Your task to perform on an android device: Open Chrome and go to settings Image 0: 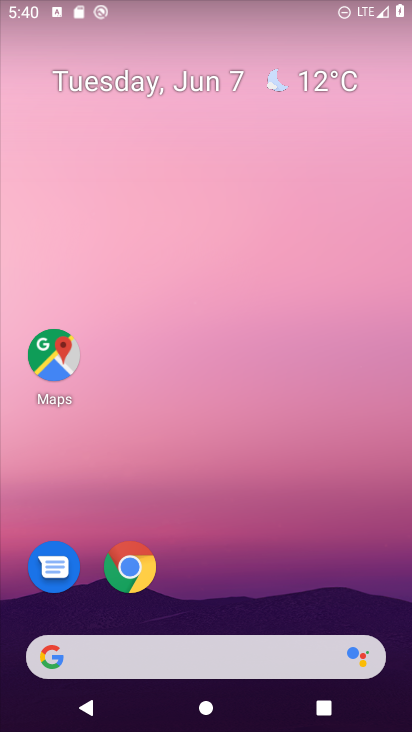
Step 0: drag from (326, 670) to (370, 37)
Your task to perform on an android device: Open Chrome and go to settings Image 1: 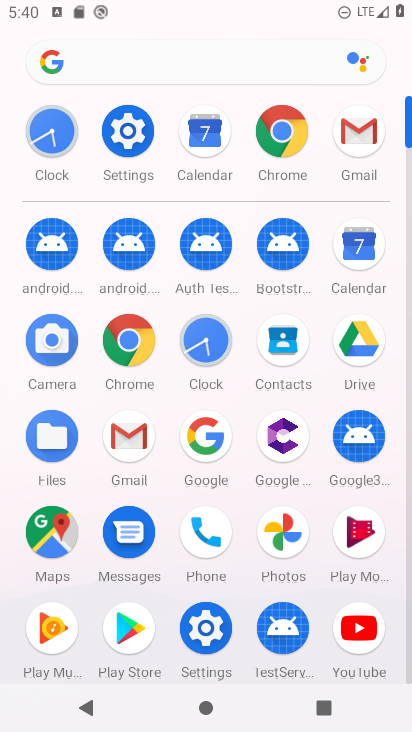
Step 1: click (124, 338)
Your task to perform on an android device: Open Chrome and go to settings Image 2: 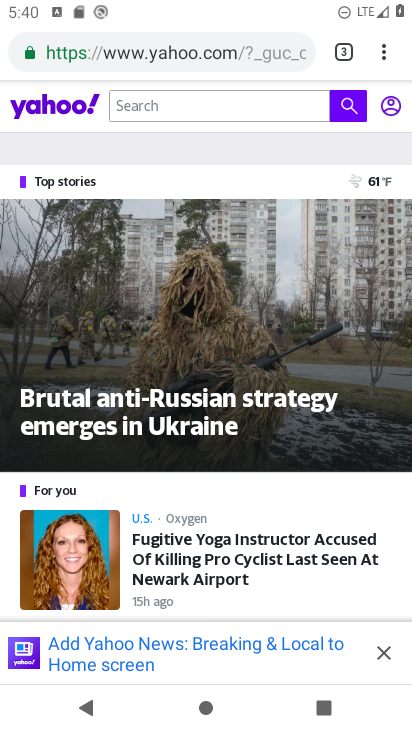
Step 2: click (376, 54)
Your task to perform on an android device: Open Chrome and go to settings Image 3: 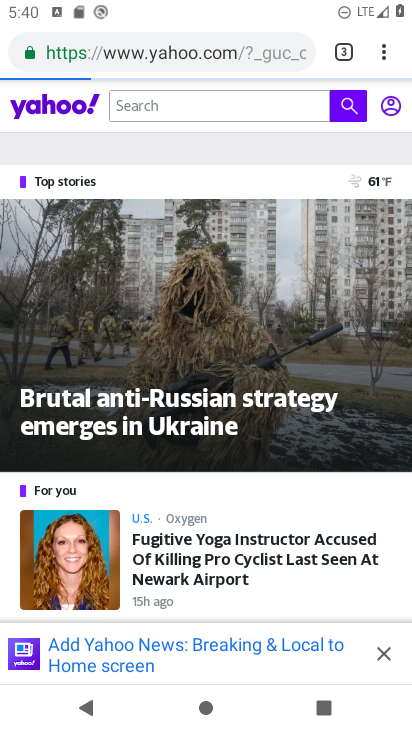
Step 3: task complete